Your task to perform on an android device: Go to Google Image 0: 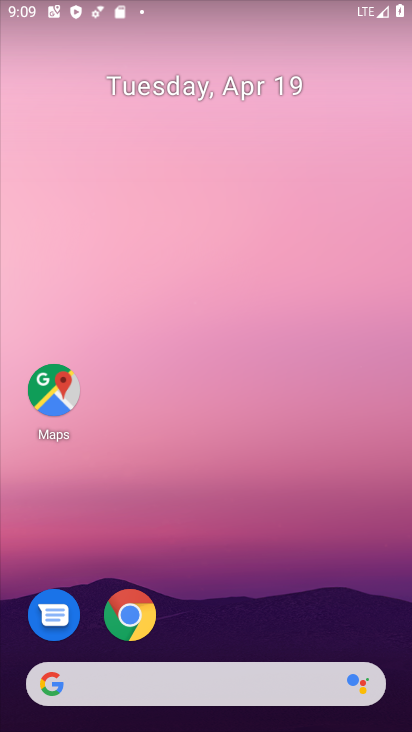
Step 0: click (52, 692)
Your task to perform on an android device: Go to Google Image 1: 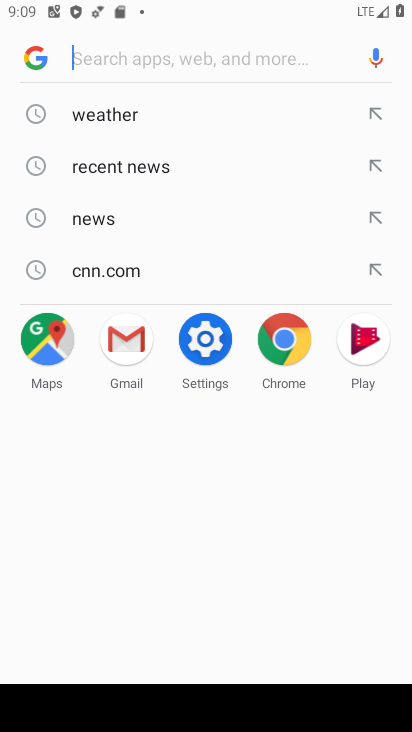
Step 1: click (40, 63)
Your task to perform on an android device: Go to Google Image 2: 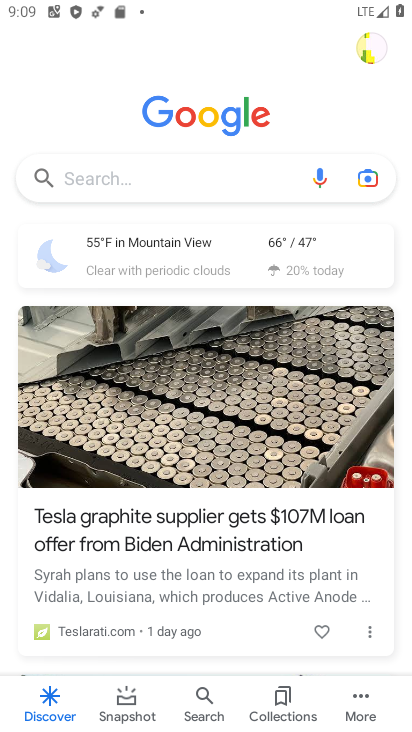
Step 2: task complete